Your task to perform on an android device: turn notification dots off Image 0: 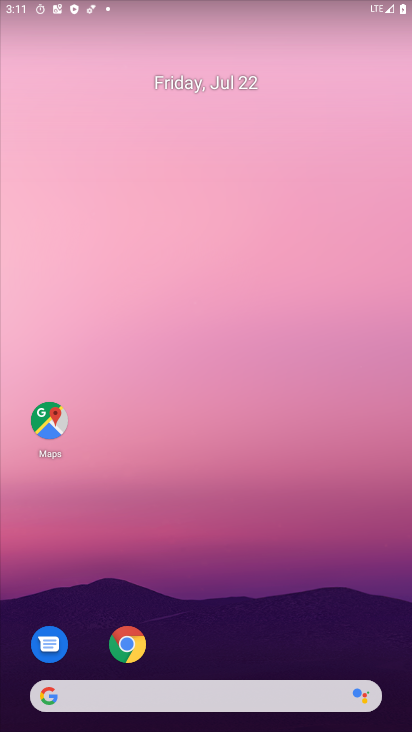
Step 0: press home button
Your task to perform on an android device: turn notification dots off Image 1: 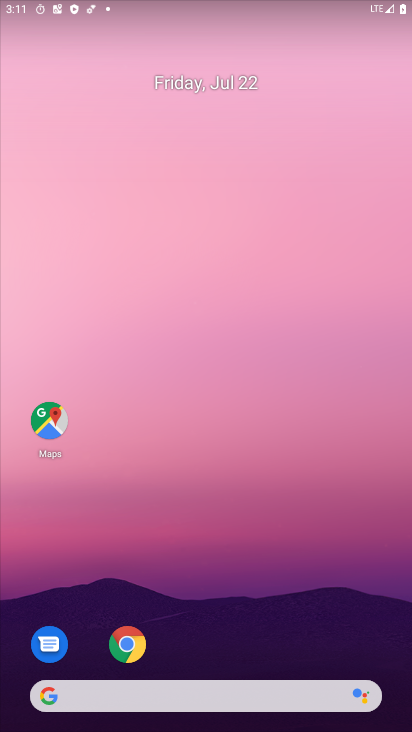
Step 1: drag from (256, 623) to (212, 88)
Your task to perform on an android device: turn notification dots off Image 2: 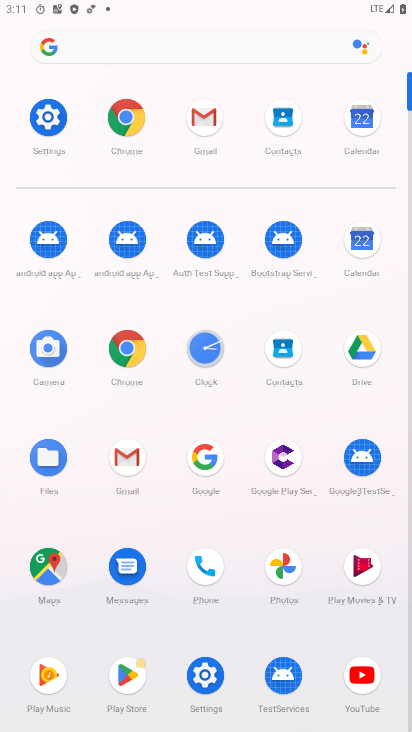
Step 2: click (45, 117)
Your task to perform on an android device: turn notification dots off Image 3: 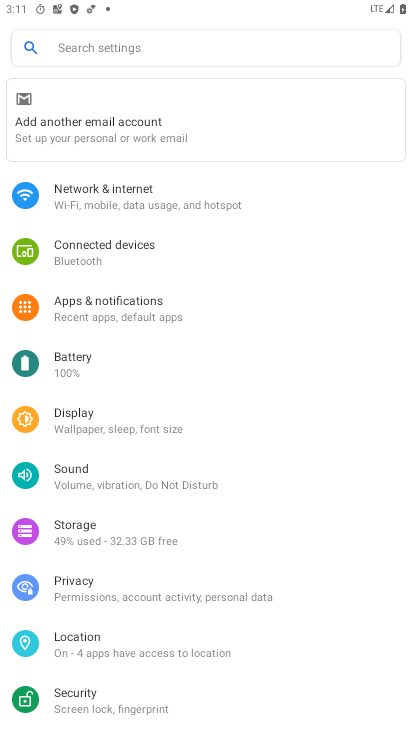
Step 3: click (130, 308)
Your task to perform on an android device: turn notification dots off Image 4: 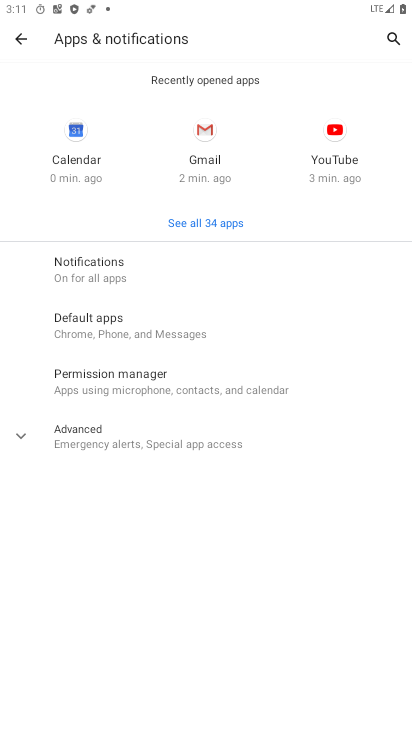
Step 4: click (83, 276)
Your task to perform on an android device: turn notification dots off Image 5: 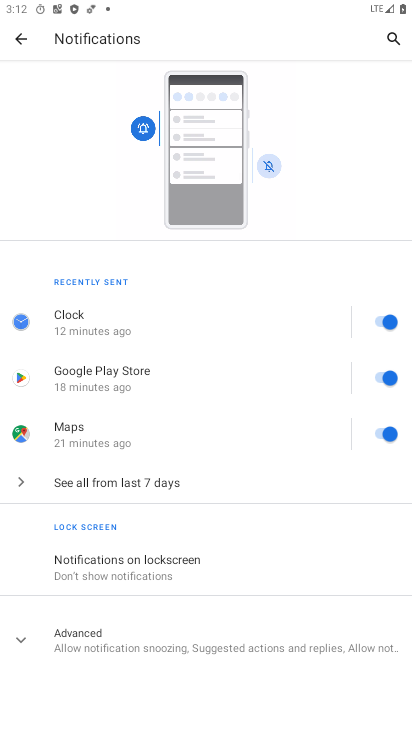
Step 5: click (81, 640)
Your task to perform on an android device: turn notification dots off Image 6: 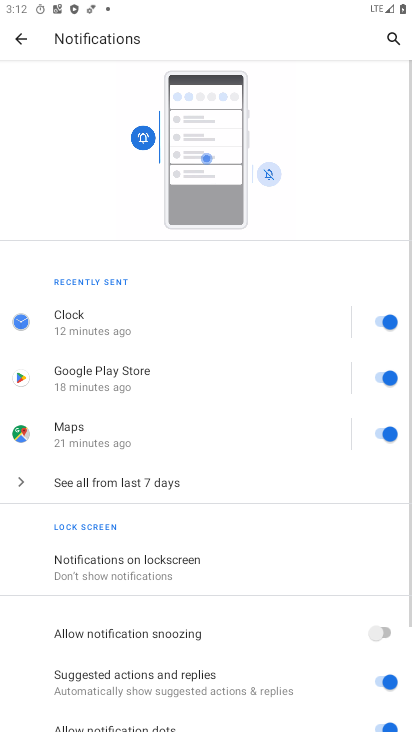
Step 6: drag from (305, 635) to (336, 212)
Your task to perform on an android device: turn notification dots off Image 7: 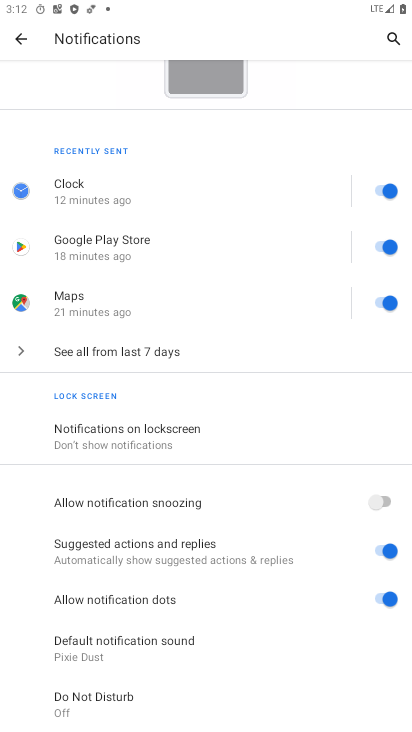
Step 7: click (386, 596)
Your task to perform on an android device: turn notification dots off Image 8: 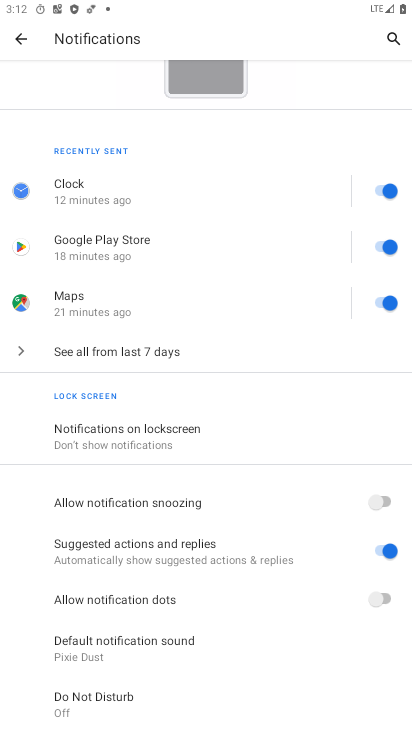
Step 8: task complete